Your task to perform on an android device: Open maps Image 0: 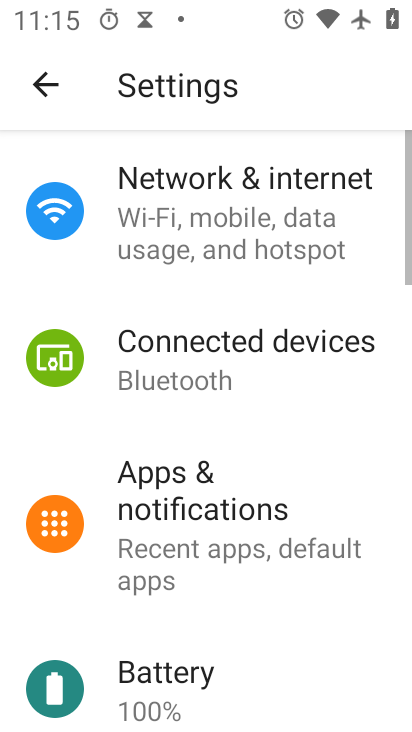
Step 0: press home button
Your task to perform on an android device: Open maps Image 1: 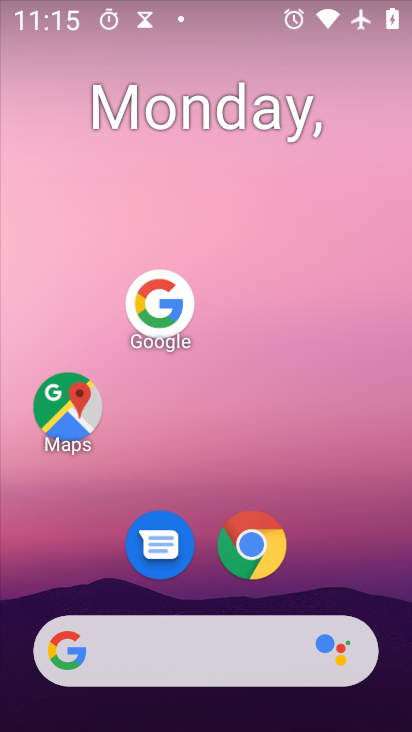
Step 1: click (64, 420)
Your task to perform on an android device: Open maps Image 2: 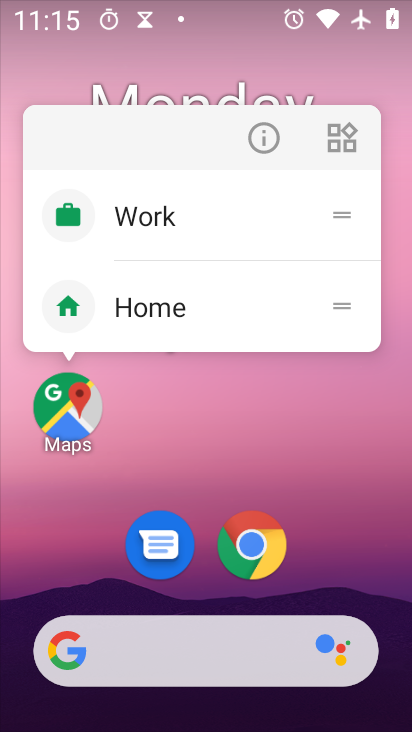
Step 2: click (82, 435)
Your task to perform on an android device: Open maps Image 3: 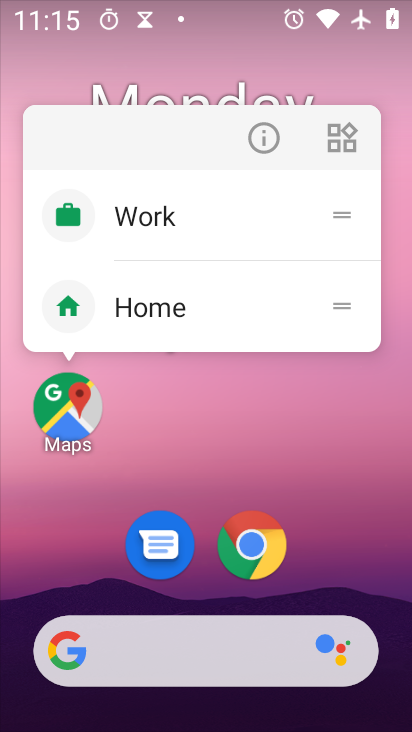
Step 3: click (54, 403)
Your task to perform on an android device: Open maps Image 4: 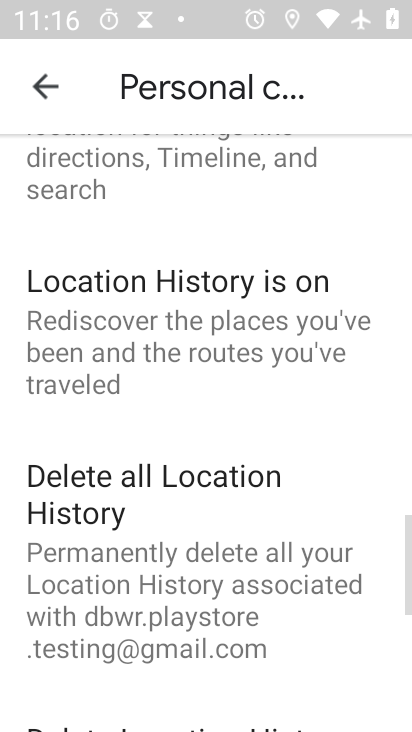
Step 4: click (48, 94)
Your task to perform on an android device: Open maps Image 5: 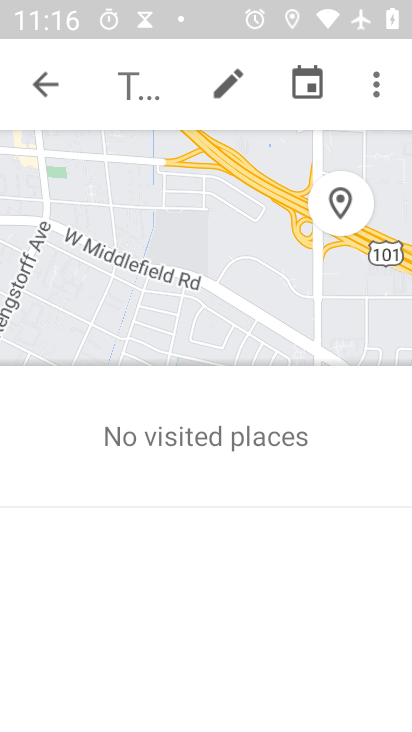
Step 5: task complete